Your task to perform on an android device: turn on translation in the chrome app Image 0: 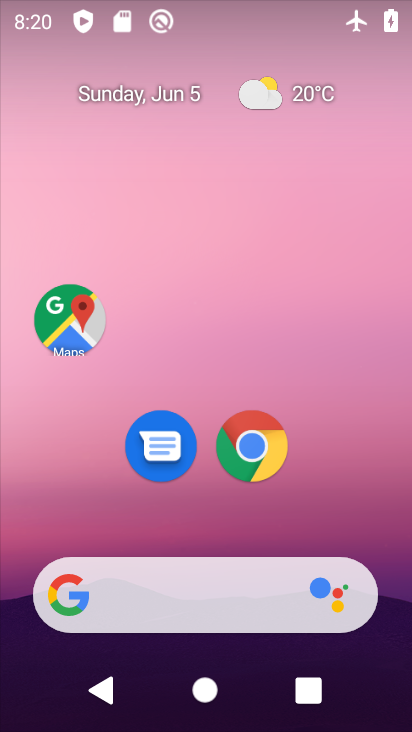
Step 0: click (263, 472)
Your task to perform on an android device: turn on translation in the chrome app Image 1: 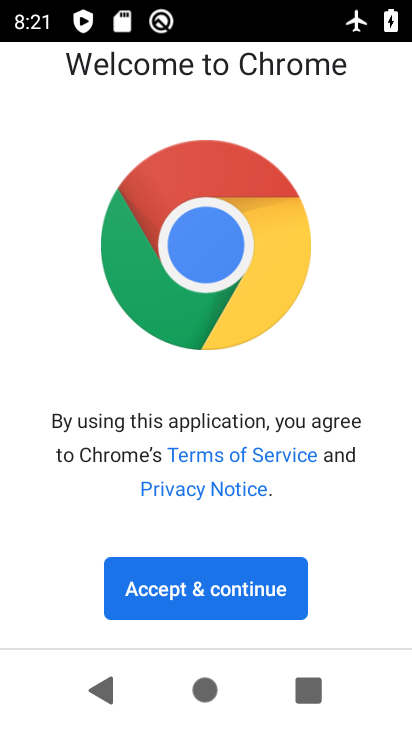
Step 1: click (191, 590)
Your task to perform on an android device: turn on translation in the chrome app Image 2: 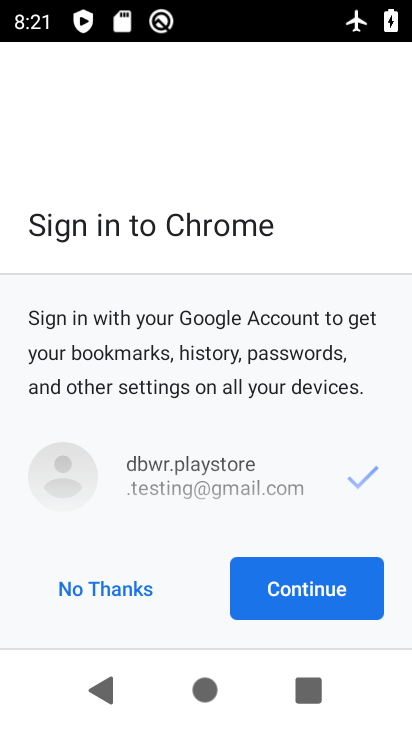
Step 2: click (296, 602)
Your task to perform on an android device: turn on translation in the chrome app Image 3: 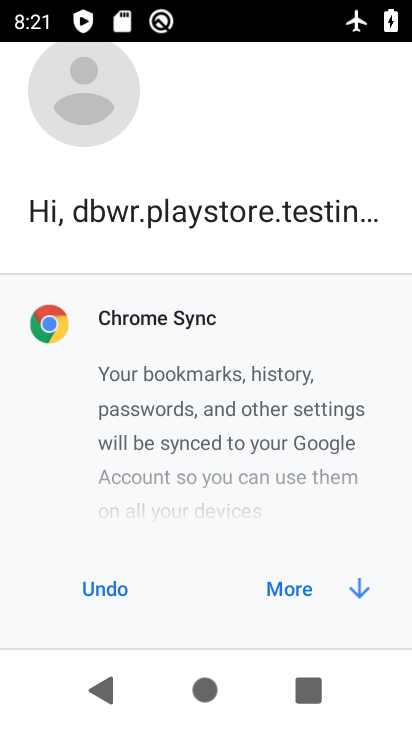
Step 3: click (303, 579)
Your task to perform on an android device: turn on translation in the chrome app Image 4: 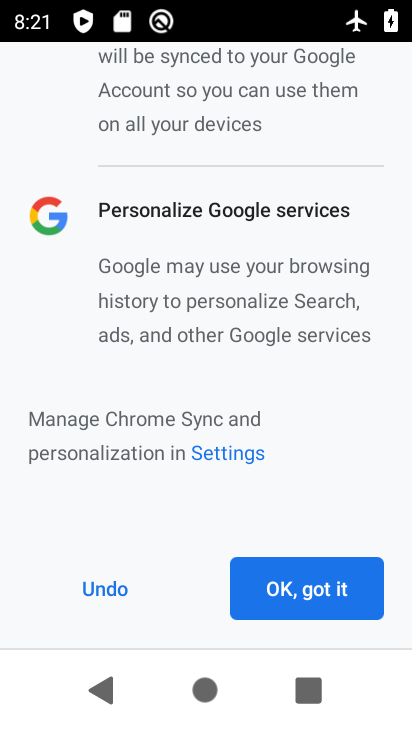
Step 4: click (303, 579)
Your task to perform on an android device: turn on translation in the chrome app Image 5: 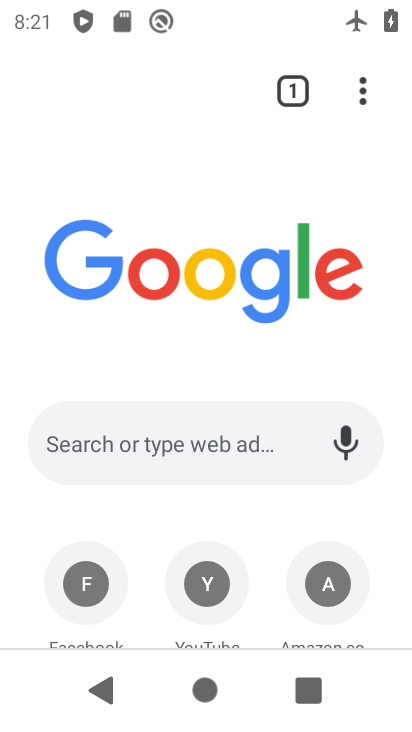
Step 5: drag from (364, 92) to (111, 475)
Your task to perform on an android device: turn on translation in the chrome app Image 6: 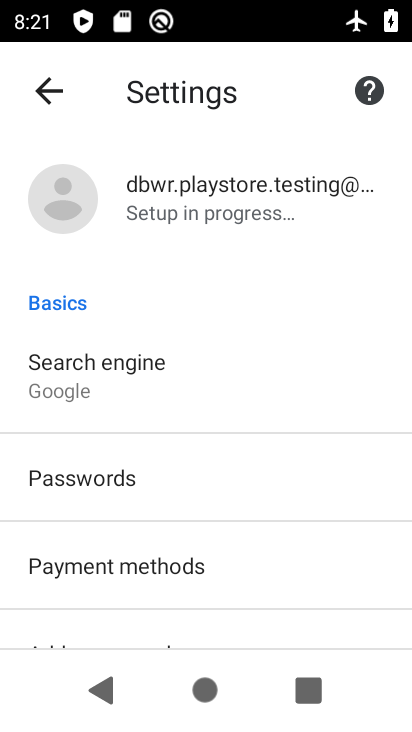
Step 6: drag from (161, 568) to (198, 283)
Your task to perform on an android device: turn on translation in the chrome app Image 7: 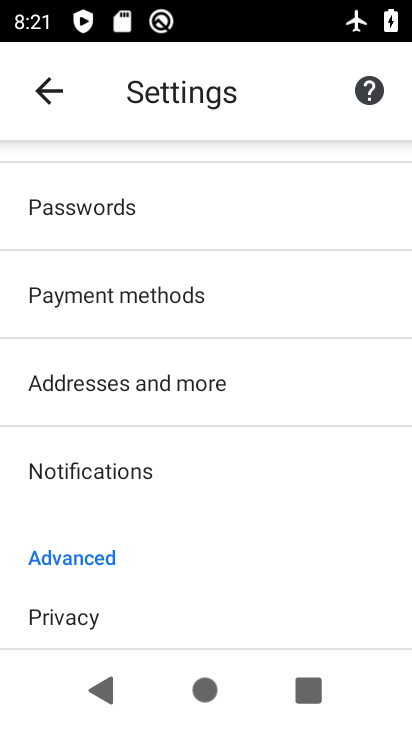
Step 7: drag from (167, 546) to (198, 335)
Your task to perform on an android device: turn on translation in the chrome app Image 8: 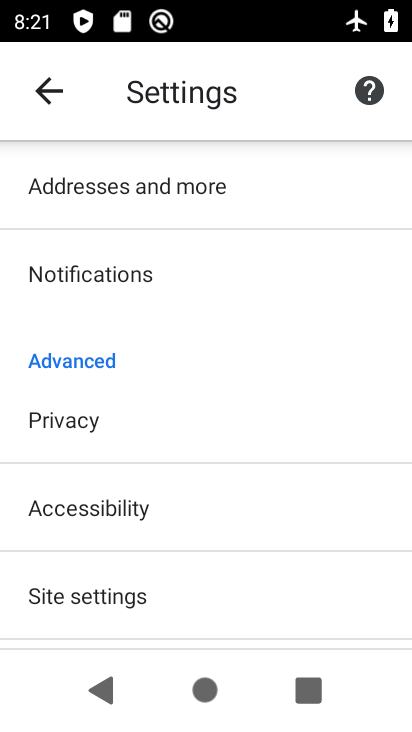
Step 8: drag from (168, 551) to (211, 343)
Your task to perform on an android device: turn on translation in the chrome app Image 9: 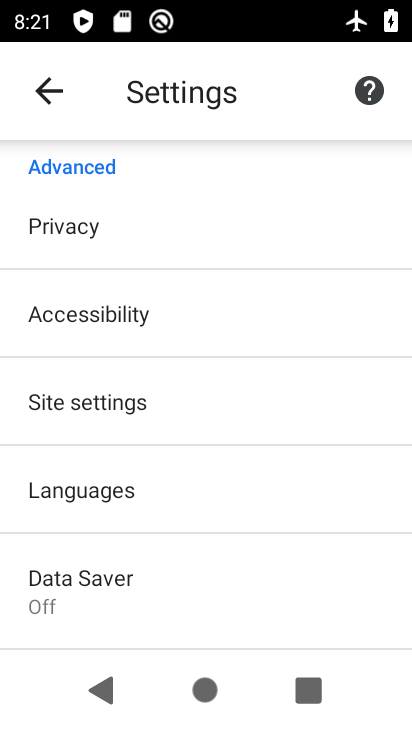
Step 9: drag from (161, 532) to (174, 414)
Your task to perform on an android device: turn on translation in the chrome app Image 10: 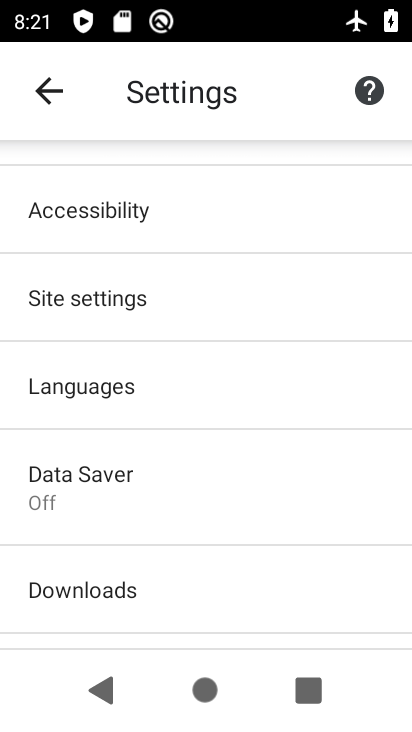
Step 10: click (152, 400)
Your task to perform on an android device: turn on translation in the chrome app Image 11: 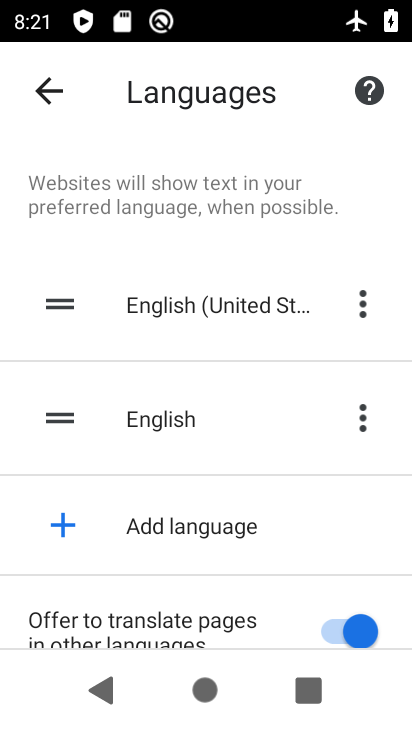
Step 11: task complete